Your task to perform on an android device: Open Youtube and go to the subscriptions tab Image 0: 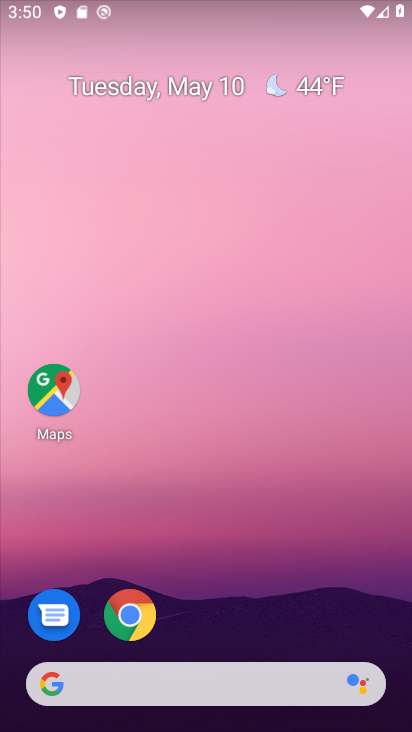
Step 0: drag from (232, 727) to (223, 235)
Your task to perform on an android device: Open Youtube and go to the subscriptions tab Image 1: 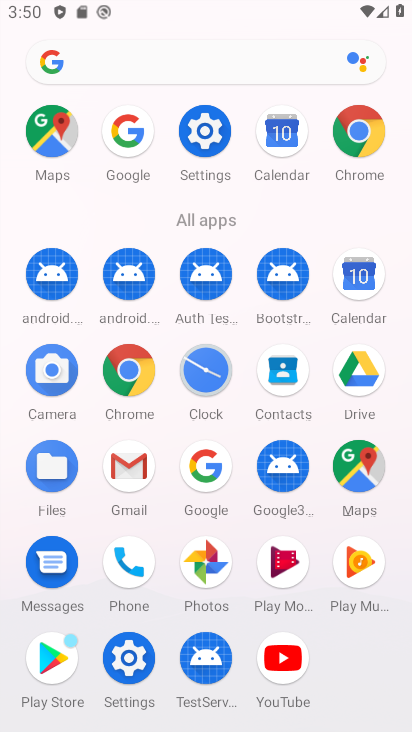
Step 1: click (289, 653)
Your task to perform on an android device: Open Youtube and go to the subscriptions tab Image 2: 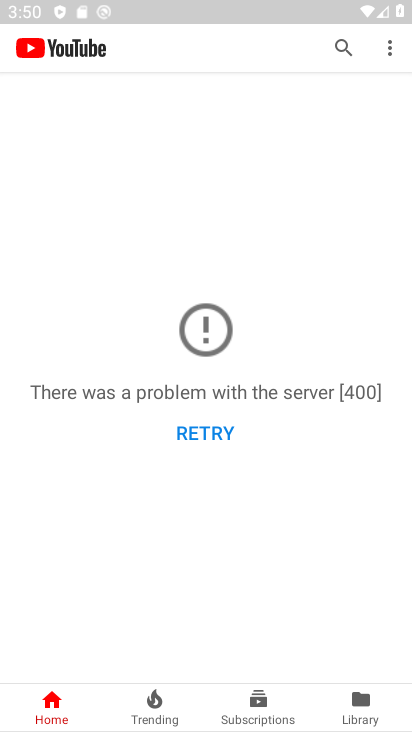
Step 2: task complete